Your task to perform on an android device: turn off airplane mode Image 0: 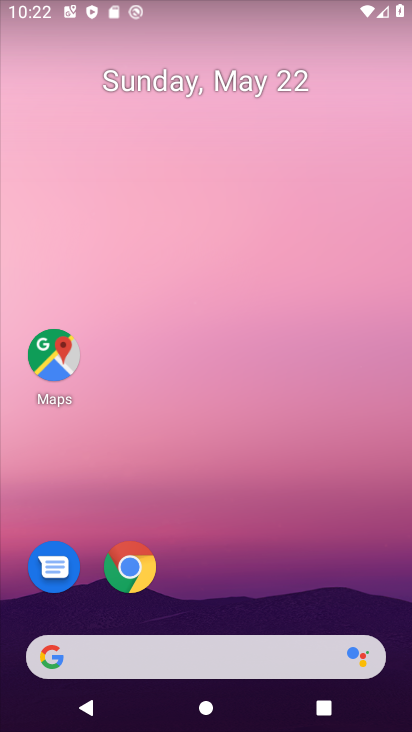
Step 0: drag from (184, 653) to (97, 0)
Your task to perform on an android device: turn off airplane mode Image 1: 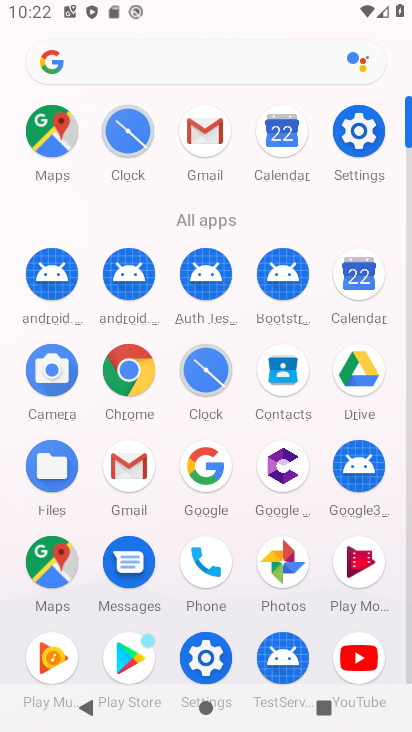
Step 1: click (363, 138)
Your task to perform on an android device: turn off airplane mode Image 2: 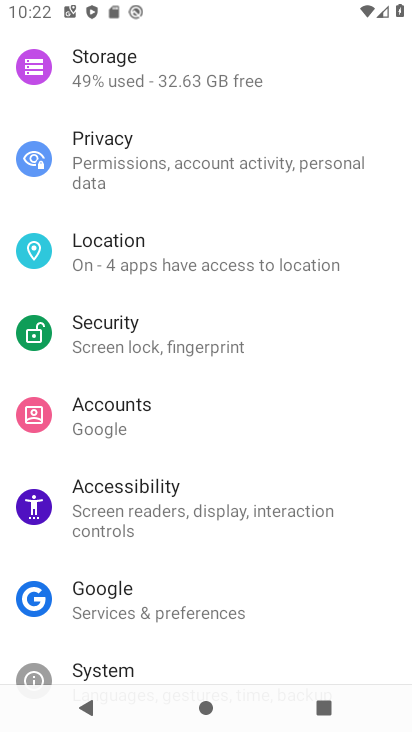
Step 2: drag from (122, 130) to (136, 500)
Your task to perform on an android device: turn off airplane mode Image 3: 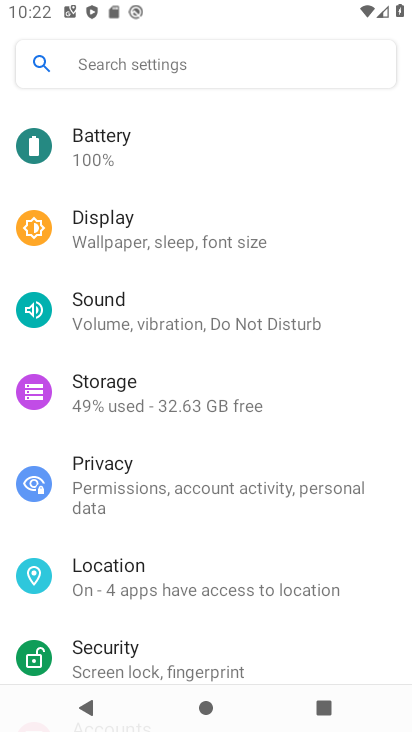
Step 3: drag from (117, 148) to (175, 489)
Your task to perform on an android device: turn off airplane mode Image 4: 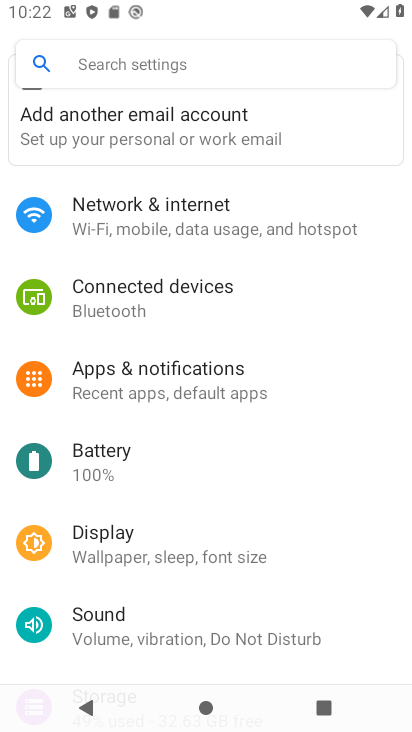
Step 4: click (171, 216)
Your task to perform on an android device: turn off airplane mode Image 5: 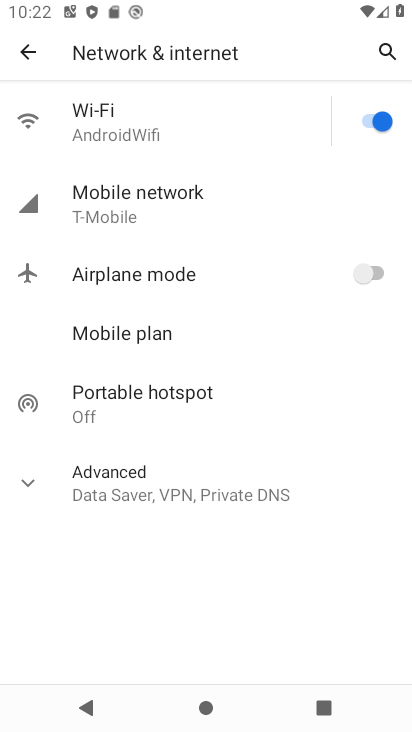
Step 5: task complete